Your task to perform on an android device: Open Chrome and go to the settings page Image 0: 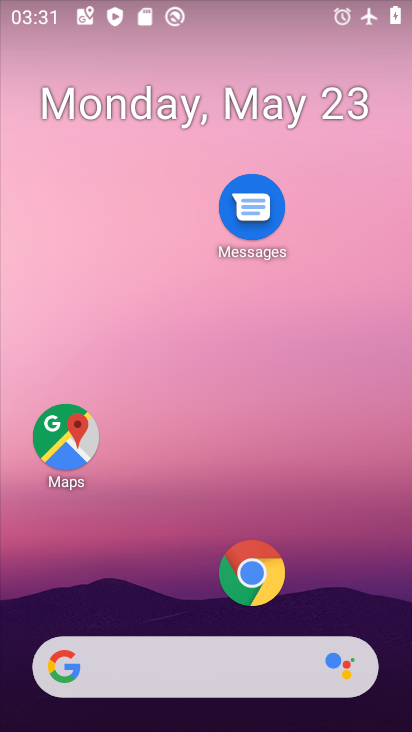
Step 0: drag from (227, 648) to (249, 62)
Your task to perform on an android device: Open Chrome and go to the settings page Image 1: 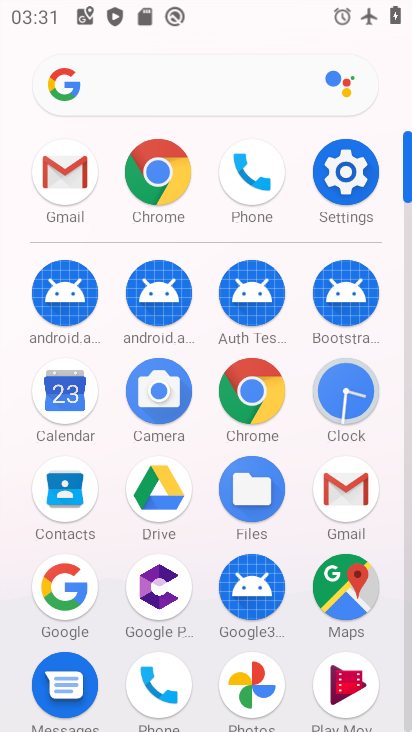
Step 1: click (268, 388)
Your task to perform on an android device: Open Chrome and go to the settings page Image 2: 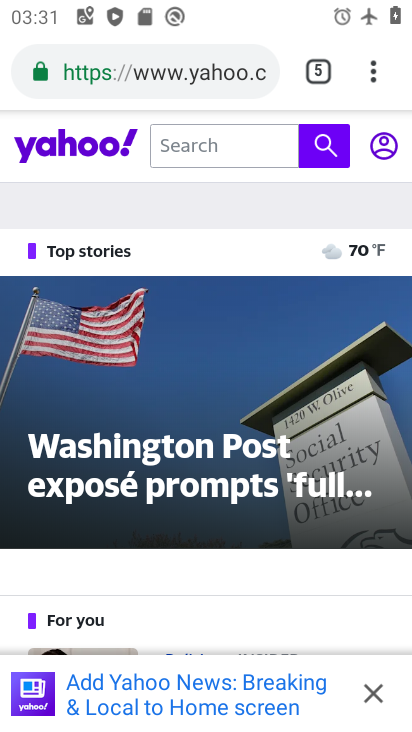
Step 2: task complete